Your task to perform on an android device: Show the shopping cart on walmart.com. Add razer blade to the cart on walmart.com, then select checkout. Image 0: 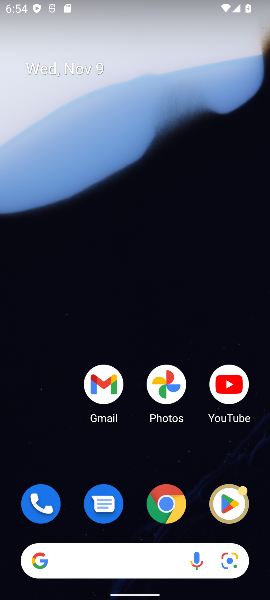
Step 0: click (164, 505)
Your task to perform on an android device: Show the shopping cart on walmart.com. Add razer blade to the cart on walmart.com, then select checkout. Image 1: 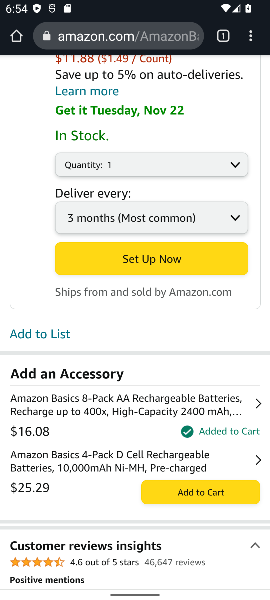
Step 1: click (105, 32)
Your task to perform on an android device: Show the shopping cart on walmart.com. Add razer blade to the cart on walmart.com, then select checkout. Image 2: 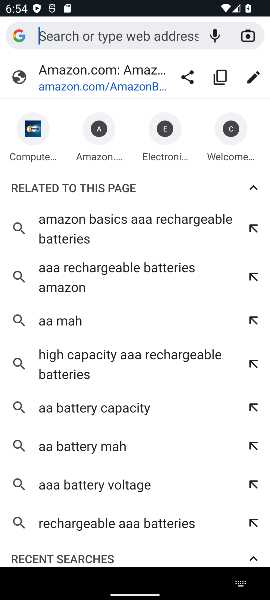
Step 2: type "walmart.com"
Your task to perform on an android device: Show the shopping cart on walmart.com. Add razer blade to the cart on walmart.com, then select checkout. Image 3: 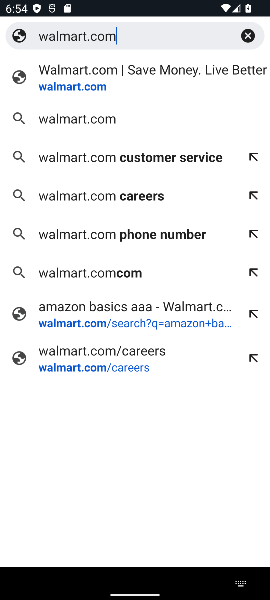
Step 3: click (112, 77)
Your task to perform on an android device: Show the shopping cart on walmart.com. Add razer blade to the cart on walmart.com, then select checkout. Image 4: 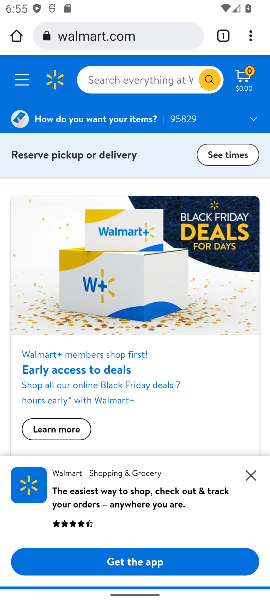
Step 4: click (110, 75)
Your task to perform on an android device: Show the shopping cart on walmart.com. Add razer blade to the cart on walmart.com, then select checkout. Image 5: 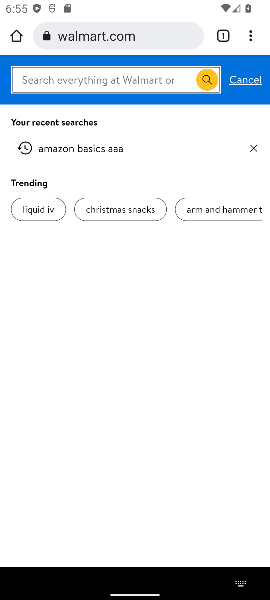
Step 5: type "razer blade"
Your task to perform on an android device: Show the shopping cart on walmart.com. Add razer blade to the cart on walmart.com, then select checkout. Image 6: 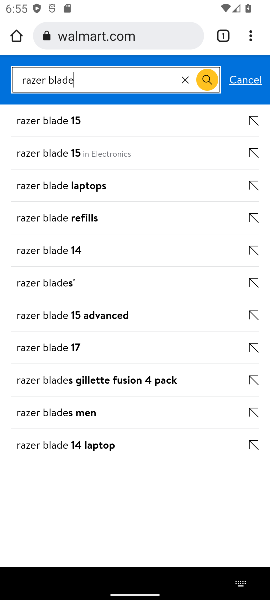
Step 6: press enter
Your task to perform on an android device: Show the shopping cart on walmart.com. Add razer blade to the cart on walmart.com, then select checkout. Image 7: 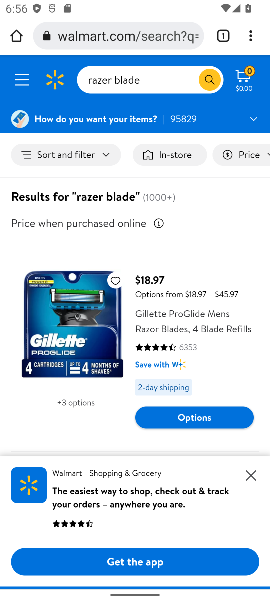
Step 7: click (252, 468)
Your task to perform on an android device: Show the shopping cart on walmart.com. Add razer blade to the cart on walmart.com, then select checkout. Image 8: 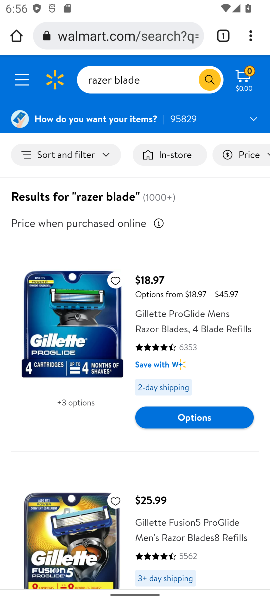
Step 8: click (181, 416)
Your task to perform on an android device: Show the shopping cart on walmart.com. Add razer blade to the cart on walmart.com, then select checkout. Image 9: 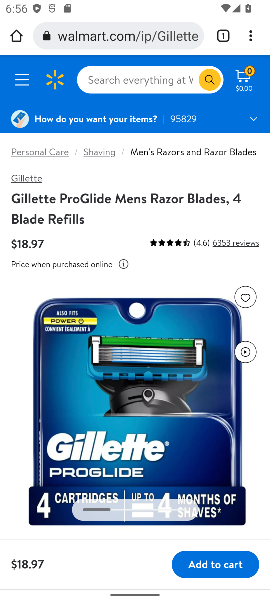
Step 9: click (223, 570)
Your task to perform on an android device: Show the shopping cart on walmart.com. Add razer blade to the cart on walmart.com, then select checkout. Image 10: 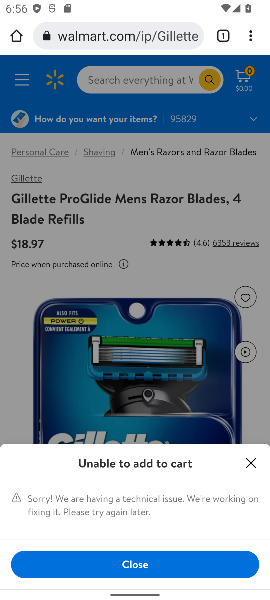
Step 10: task complete